Your task to perform on an android device: toggle javascript in the chrome app Image 0: 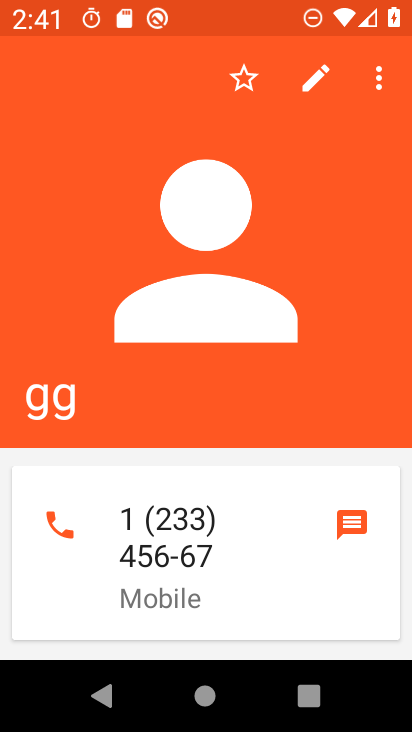
Step 0: press home button
Your task to perform on an android device: toggle javascript in the chrome app Image 1: 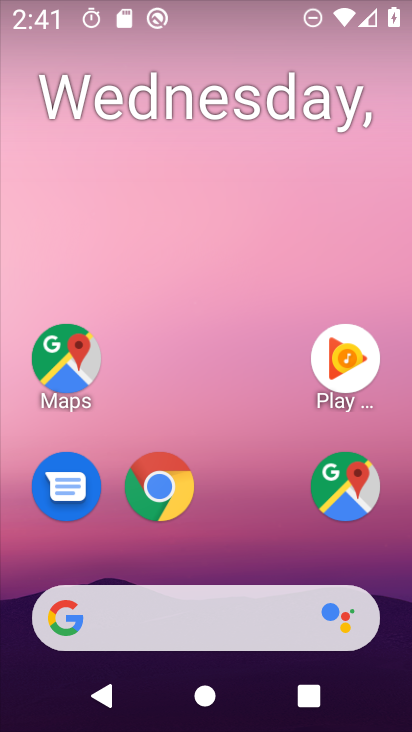
Step 1: drag from (254, 543) to (265, 85)
Your task to perform on an android device: toggle javascript in the chrome app Image 2: 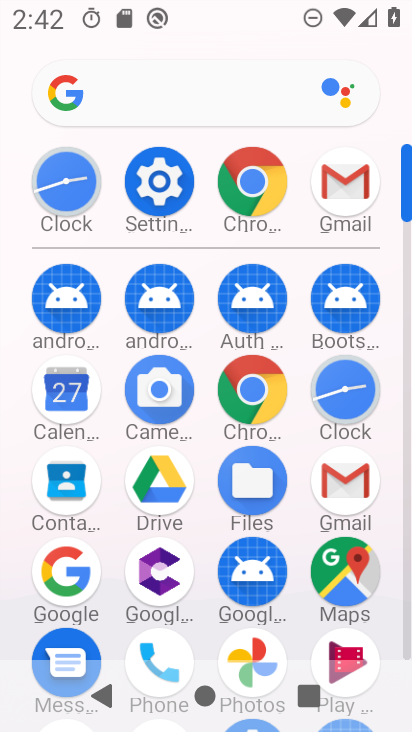
Step 2: click (253, 387)
Your task to perform on an android device: toggle javascript in the chrome app Image 3: 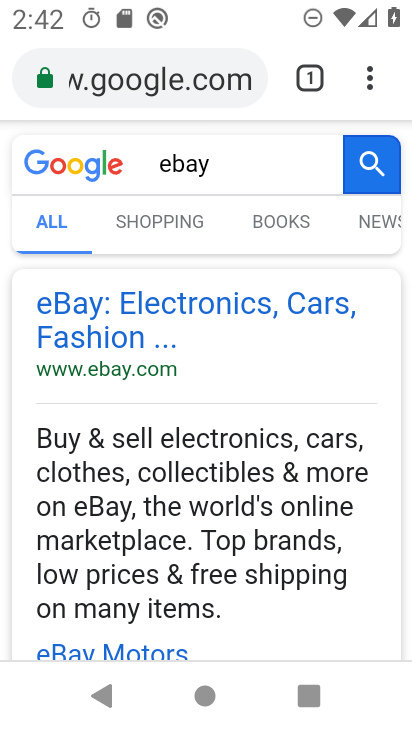
Step 3: click (367, 88)
Your task to perform on an android device: toggle javascript in the chrome app Image 4: 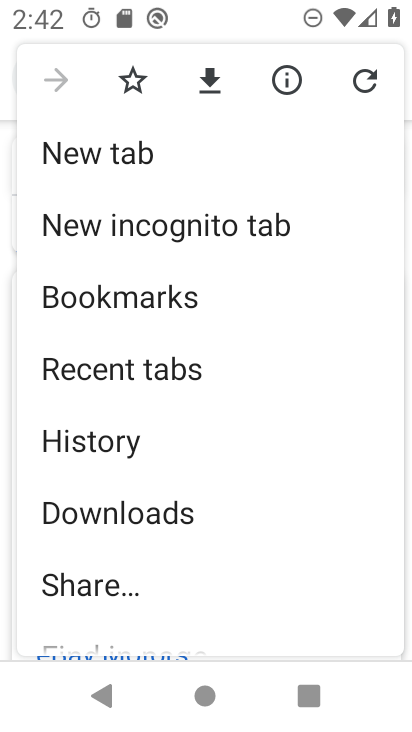
Step 4: drag from (307, 397) to (308, 348)
Your task to perform on an android device: toggle javascript in the chrome app Image 5: 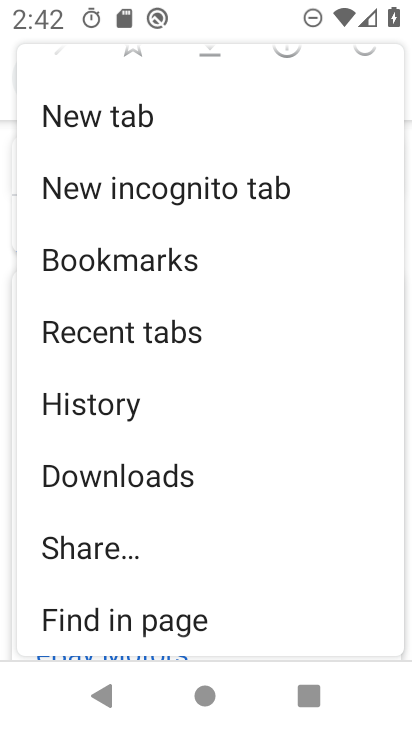
Step 5: drag from (305, 458) to (305, 409)
Your task to perform on an android device: toggle javascript in the chrome app Image 6: 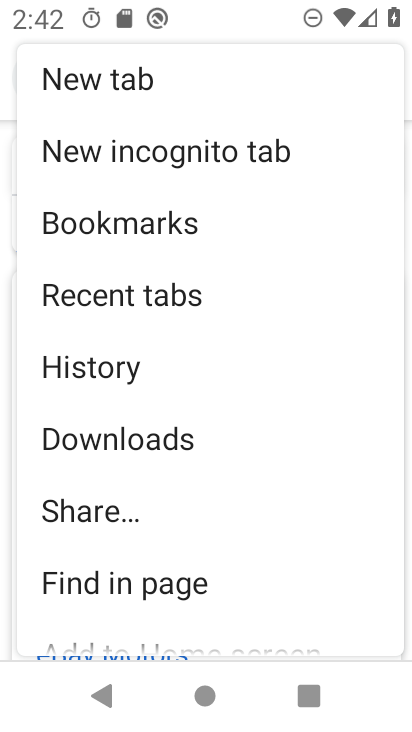
Step 6: drag from (299, 475) to (302, 402)
Your task to perform on an android device: toggle javascript in the chrome app Image 7: 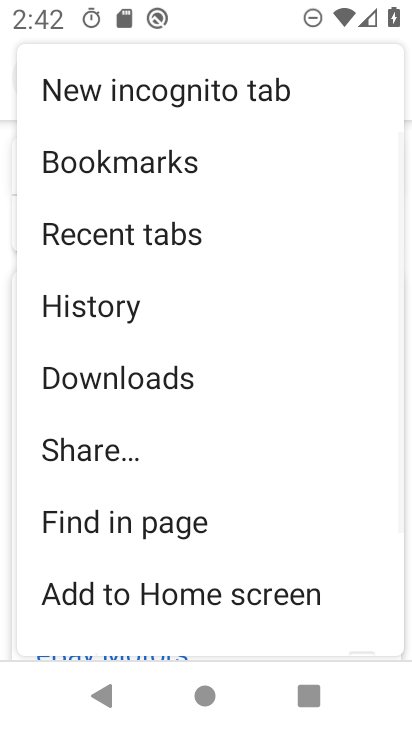
Step 7: drag from (316, 494) to (321, 414)
Your task to perform on an android device: toggle javascript in the chrome app Image 8: 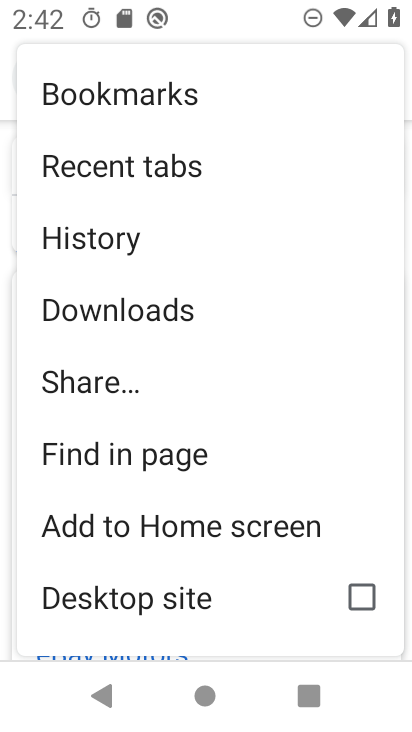
Step 8: drag from (297, 555) to (296, 445)
Your task to perform on an android device: toggle javascript in the chrome app Image 9: 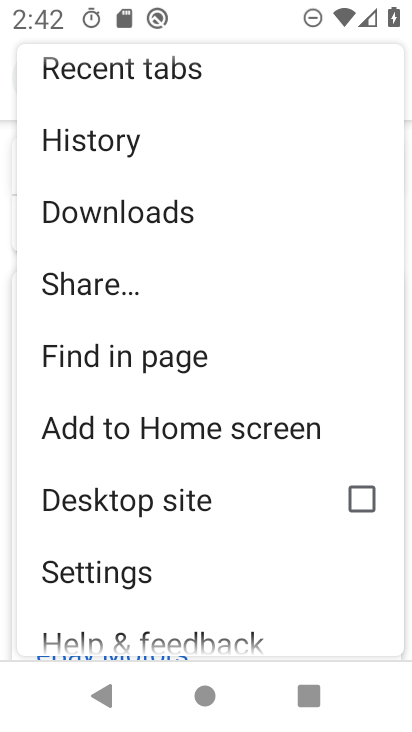
Step 9: drag from (276, 541) to (269, 445)
Your task to perform on an android device: toggle javascript in the chrome app Image 10: 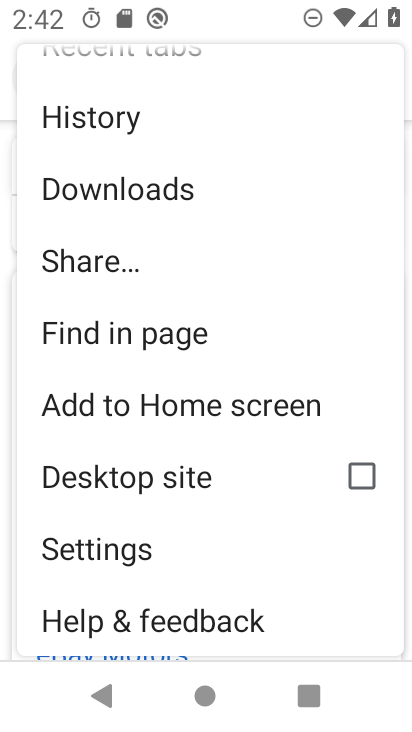
Step 10: click (242, 554)
Your task to perform on an android device: toggle javascript in the chrome app Image 11: 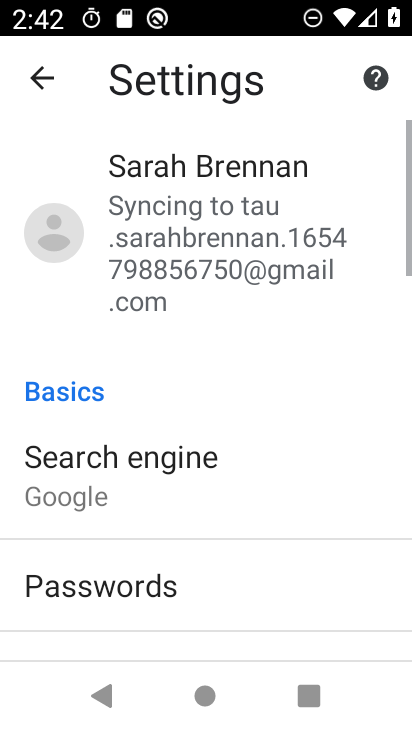
Step 11: drag from (259, 557) to (262, 476)
Your task to perform on an android device: toggle javascript in the chrome app Image 12: 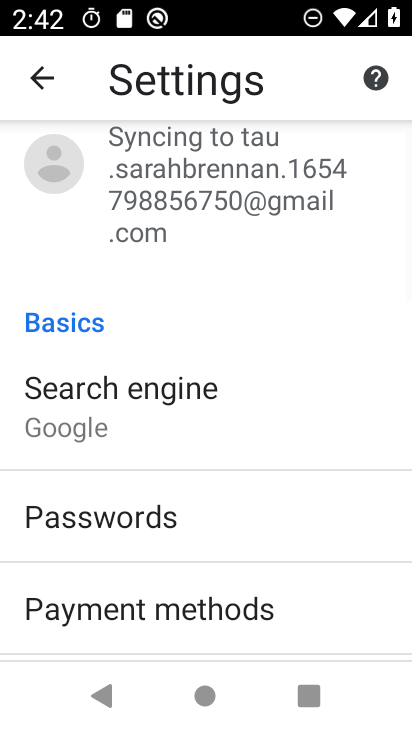
Step 12: drag from (279, 549) to (279, 475)
Your task to perform on an android device: toggle javascript in the chrome app Image 13: 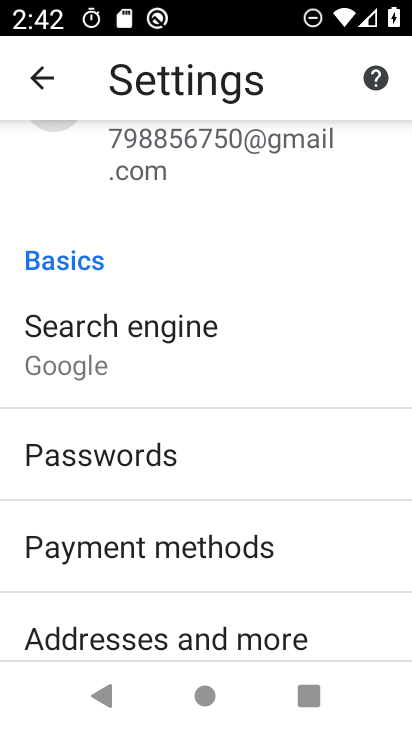
Step 13: drag from (311, 573) to (311, 501)
Your task to perform on an android device: toggle javascript in the chrome app Image 14: 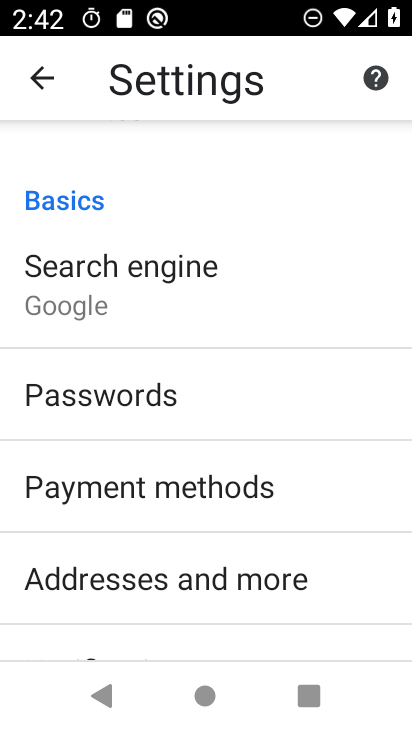
Step 14: drag from (333, 558) to (326, 475)
Your task to perform on an android device: toggle javascript in the chrome app Image 15: 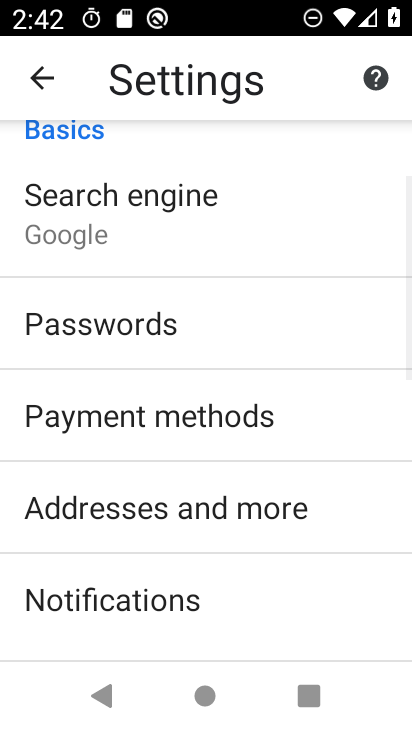
Step 15: drag from (318, 541) to (303, 461)
Your task to perform on an android device: toggle javascript in the chrome app Image 16: 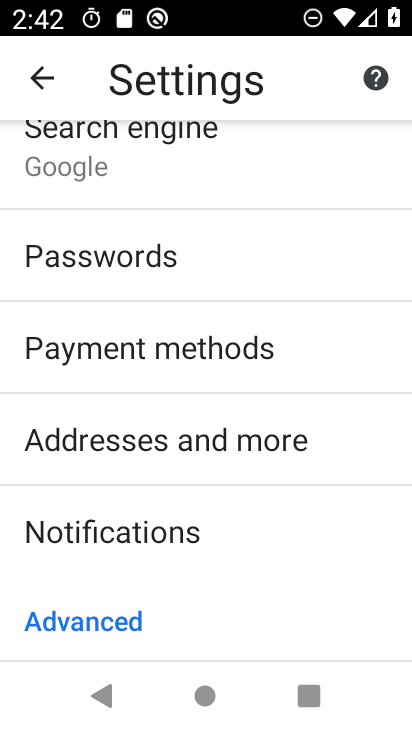
Step 16: drag from (299, 558) to (300, 447)
Your task to perform on an android device: toggle javascript in the chrome app Image 17: 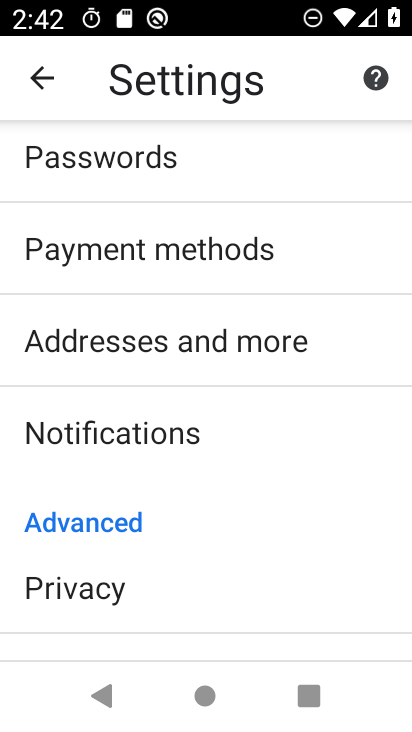
Step 17: drag from (324, 555) to (326, 417)
Your task to perform on an android device: toggle javascript in the chrome app Image 18: 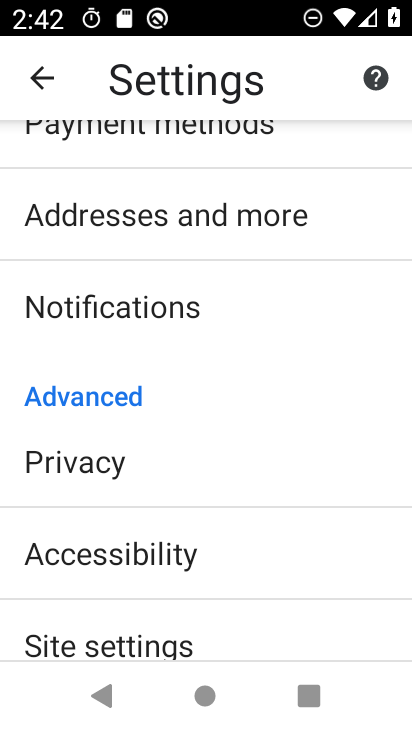
Step 18: drag from (336, 559) to (322, 428)
Your task to perform on an android device: toggle javascript in the chrome app Image 19: 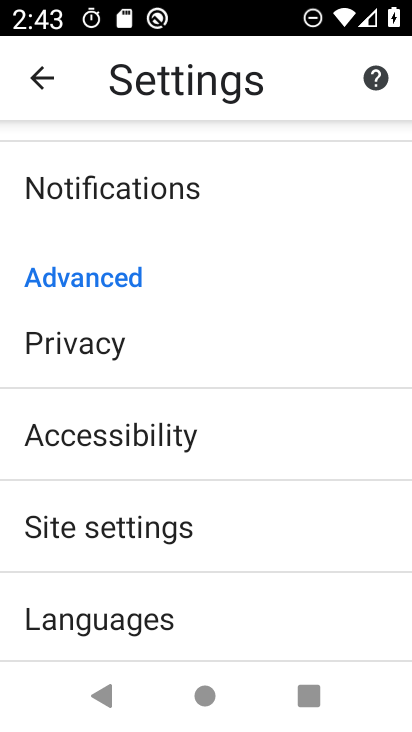
Step 19: drag from (294, 590) to (286, 479)
Your task to perform on an android device: toggle javascript in the chrome app Image 20: 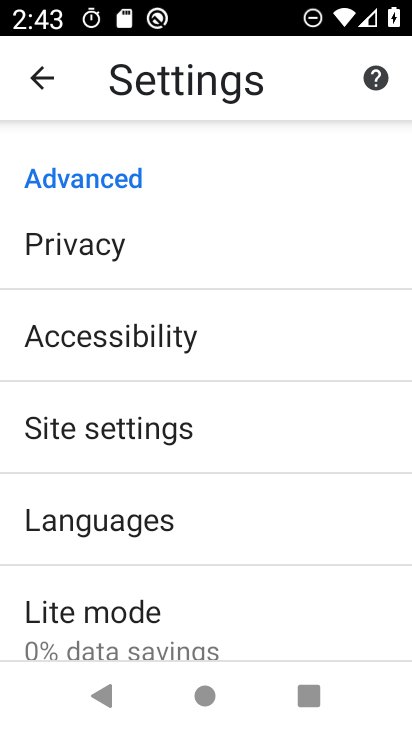
Step 20: click (238, 424)
Your task to perform on an android device: toggle javascript in the chrome app Image 21: 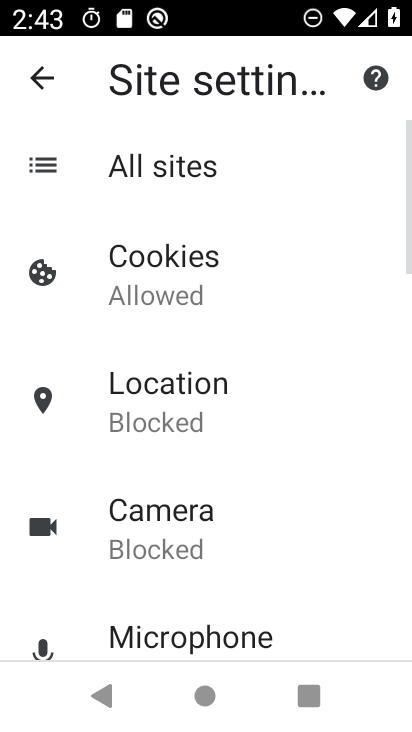
Step 21: drag from (293, 566) to (276, 449)
Your task to perform on an android device: toggle javascript in the chrome app Image 22: 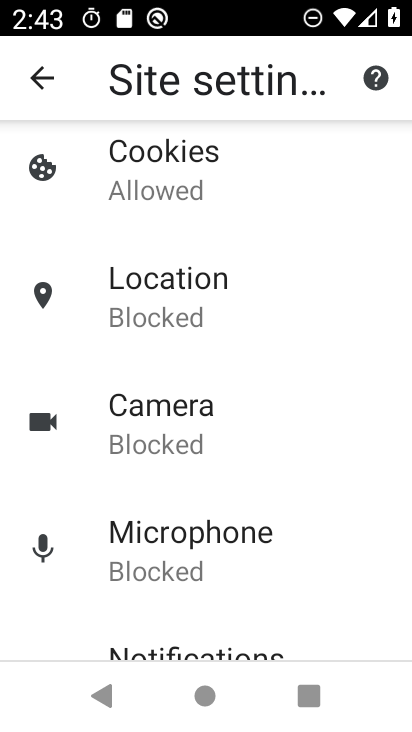
Step 22: drag from (306, 601) to (307, 481)
Your task to perform on an android device: toggle javascript in the chrome app Image 23: 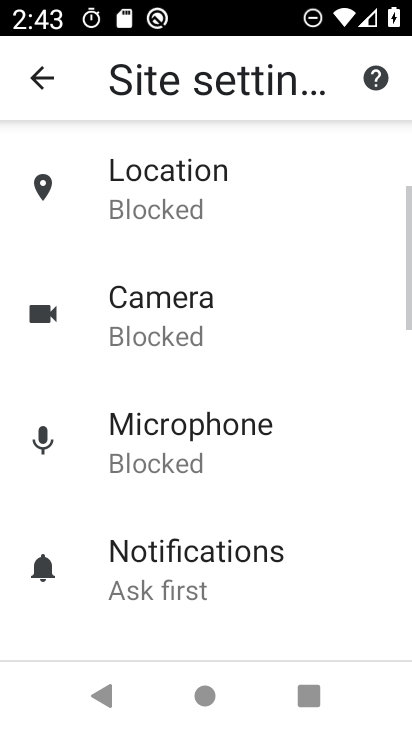
Step 23: drag from (319, 553) to (320, 432)
Your task to perform on an android device: toggle javascript in the chrome app Image 24: 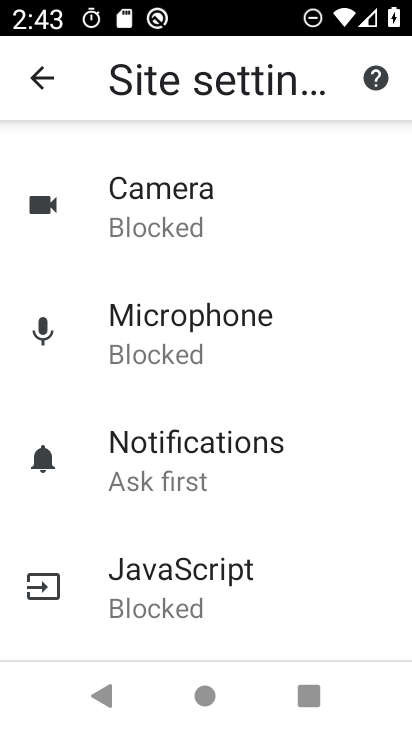
Step 24: drag from (316, 531) to (313, 406)
Your task to perform on an android device: toggle javascript in the chrome app Image 25: 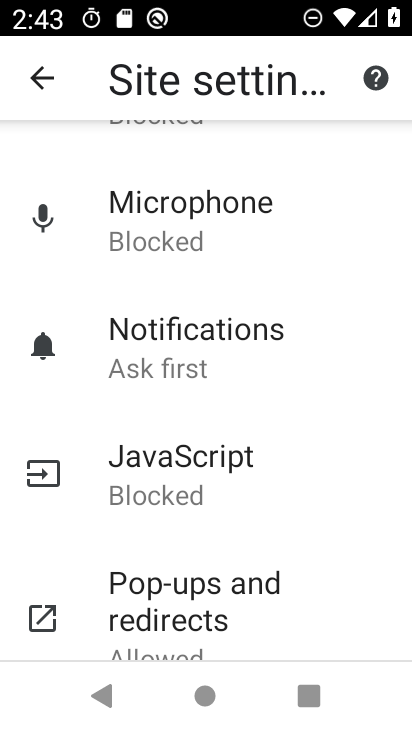
Step 25: drag from (328, 495) to (327, 398)
Your task to perform on an android device: toggle javascript in the chrome app Image 26: 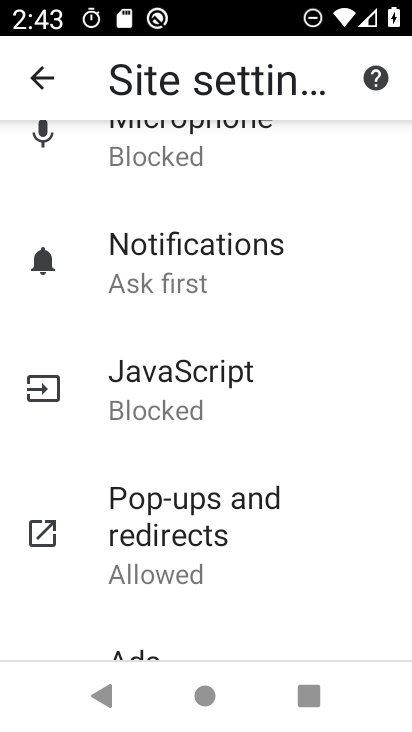
Step 26: click (219, 395)
Your task to perform on an android device: toggle javascript in the chrome app Image 27: 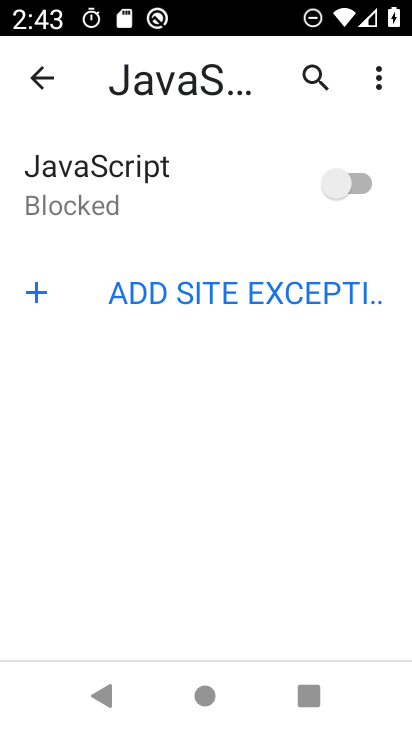
Step 27: click (339, 187)
Your task to perform on an android device: toggle javascript in the chrome app Image 28: 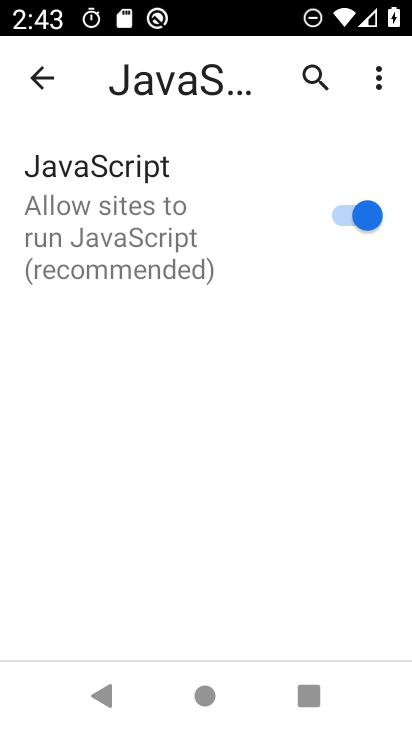
Step 28: task complete